Your task to perform on an android device: open device folders in google photos Image 0: 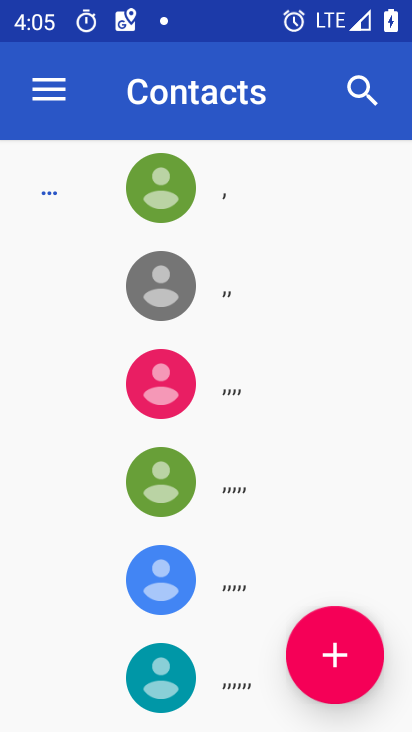
Step 0: press back button
Your task to perform on an android device: open device folders in google photos Image 1: 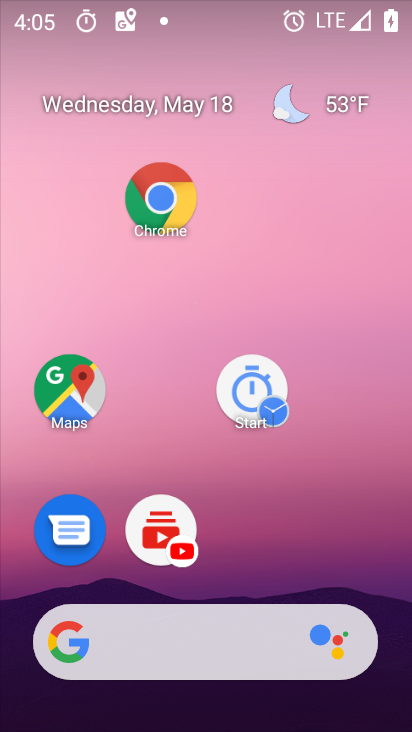
Step 1: drag from (280, 580) to (239, 244)
Your task to perform on an android device: open device folders in google photos Image 2: 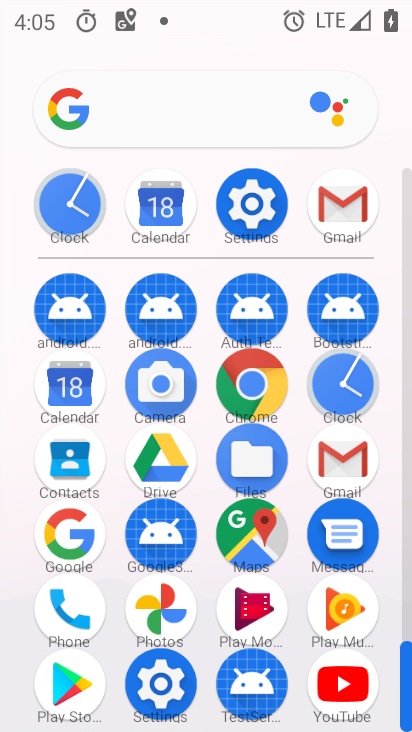
Step 2: click (164, 614)
Your task to perform on an android device: open device folders in google photos Image 3: 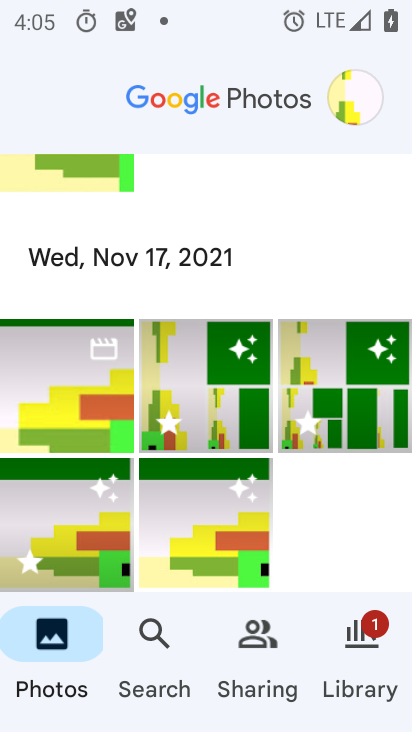
Step 3: task complete